Your task to perform on an android device: Open Amazon Image 0: 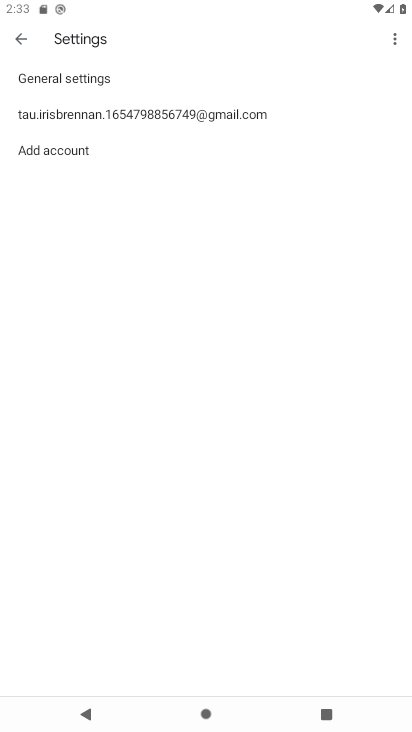
Step 0: press home button
Your task to perform on an android device: Open Amazon Image 1: 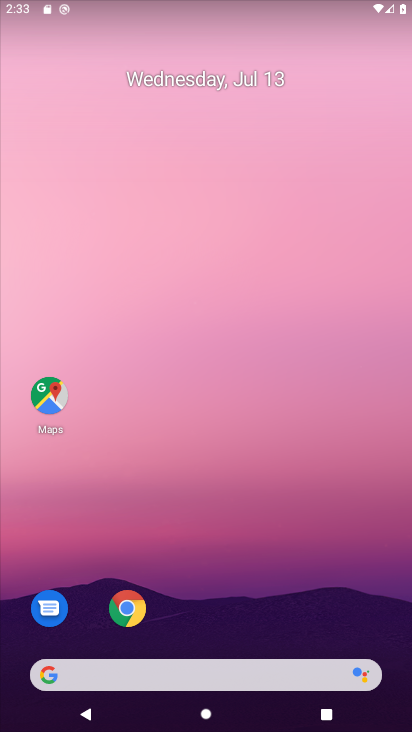
Step 1: click (130, 607)
Your task to perform on an android device: Open Amazon Image 2: 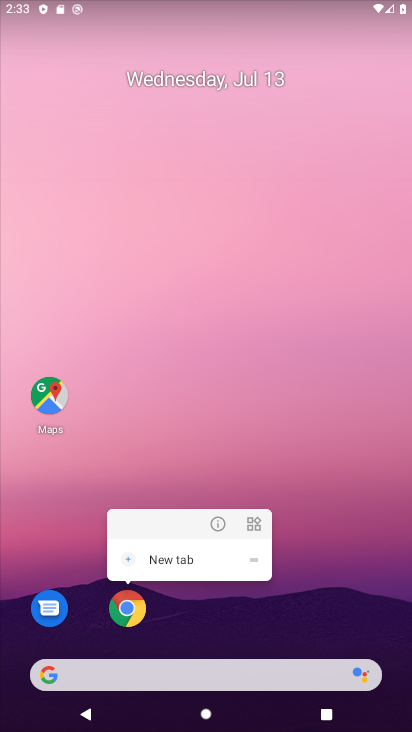
Step 2: click (130, 607)
Your task to perform on an android device: Open Amazon Image 3: 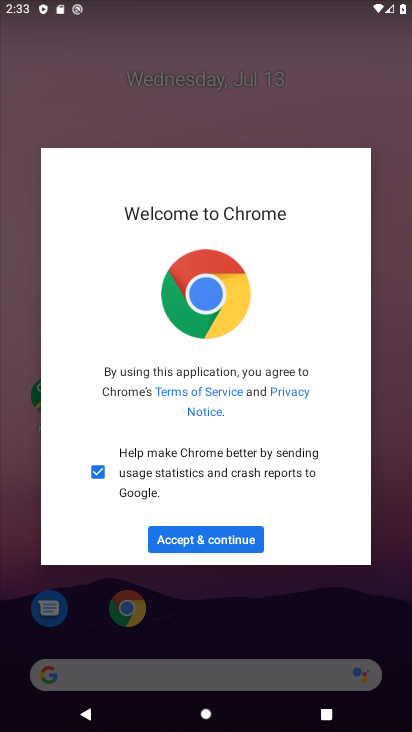
Step 3: click (204, 538)
Your task to perform on an android device: Open Amazon Image 4: 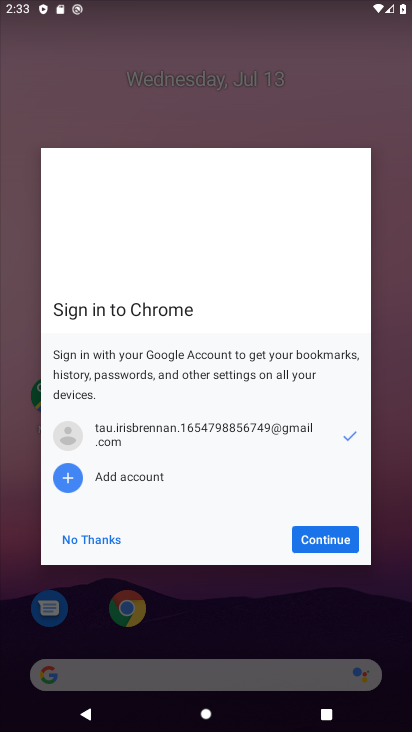
Step 4: click (320, 532)
Your task to perform on an android device: Open Amazon Image 5: 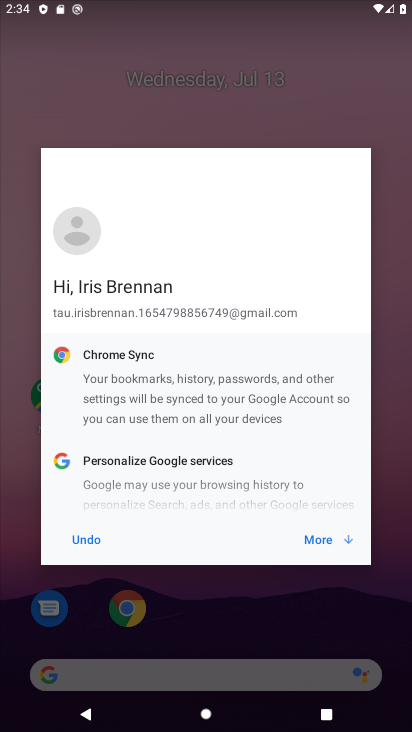
Step 5: click (319, 533)
Your task to perform on an android device: Open Amazon Image 6: 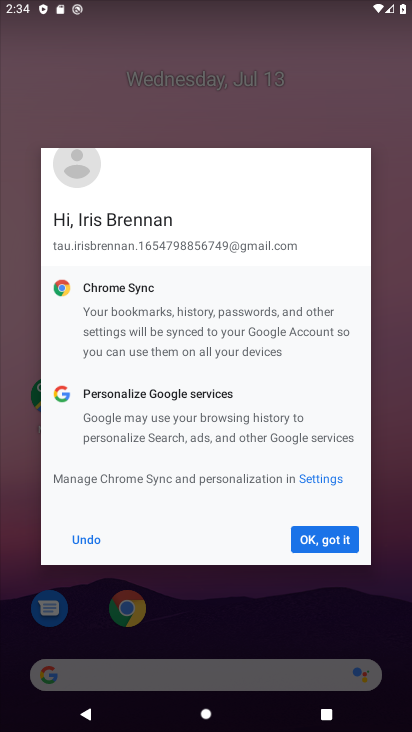
Step 6: click (319, 533)
Your task to perform on an android device: Open Amazon Image 7: 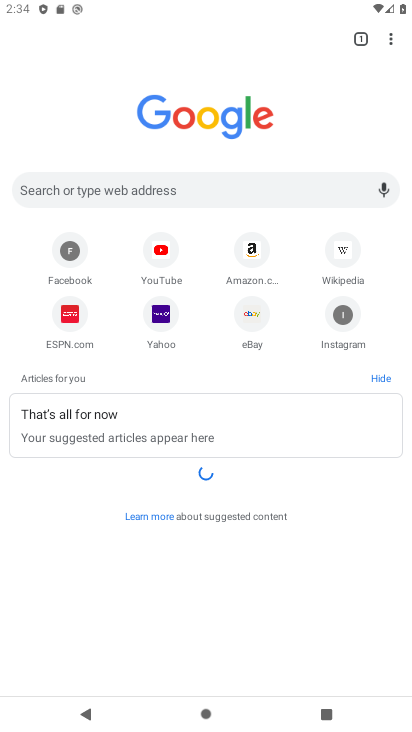
Step 7: click (256, 252)
Your task to perform on an android device: Open Amazon Image 8: 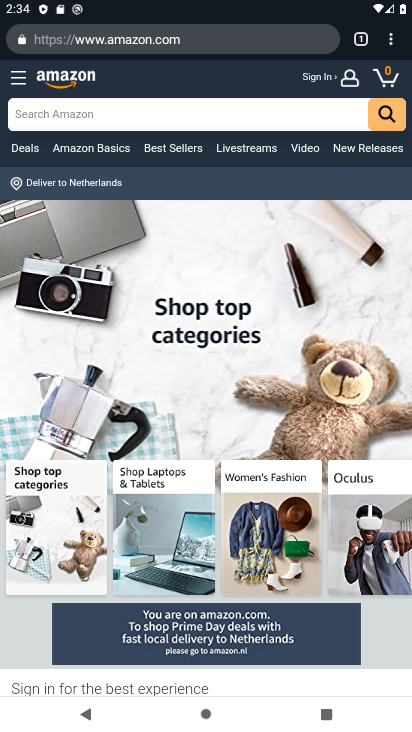
Step 8: task complete